Your task to perform on an android device: Show me popular games on the Play Store Image 0: 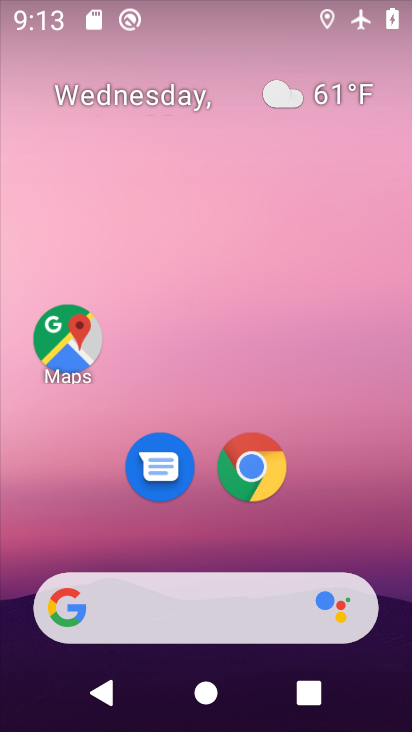
Step 0: drag from (370, 537) to (342, 141)
Your task to perform on an android device: Show me popular games on the Play Store Image 1: 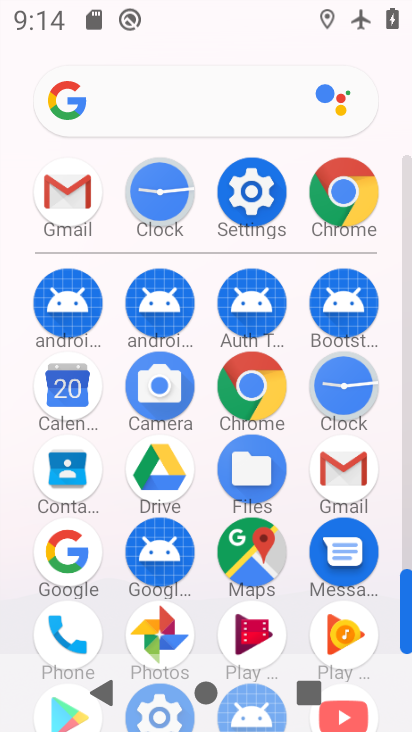
Step 1: drag from (394, 526) to (392, 202)
Your task to perform on an android device: Show me popular games on the Play Store Image 2: 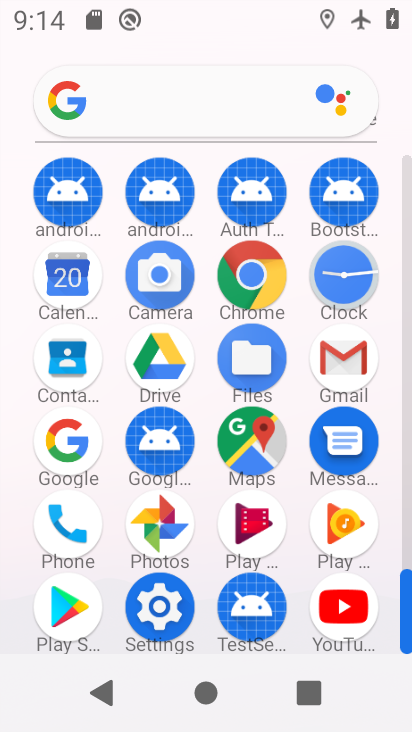
Step 2: drag from (392, 545) to (375, 321)
Your task to perform on an android device: Show me popular games on the Play Store Image 3: 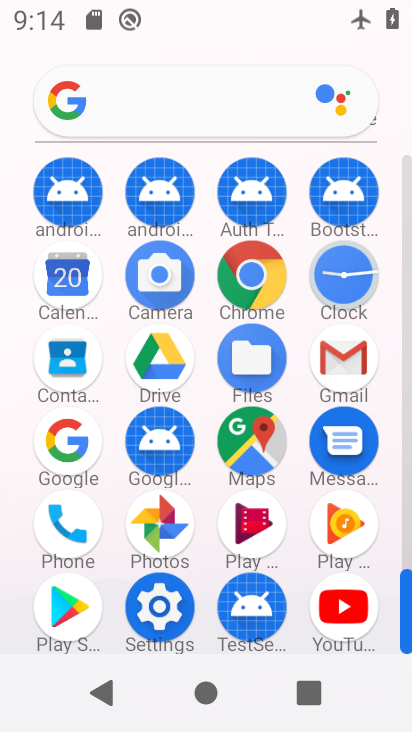
Step 3: click (65, 590)
Your task to perform on an android device: Show me popular games on the Play Store Image 4: 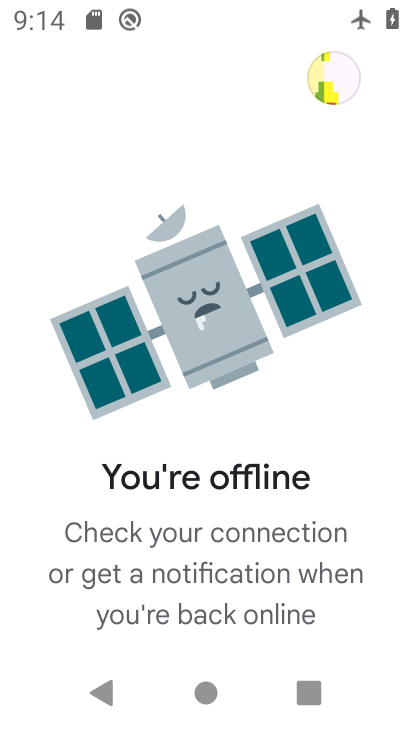
Step 4: task complete